Your task to perform on an android device: turn smart compose on in the gmail app Image 0: 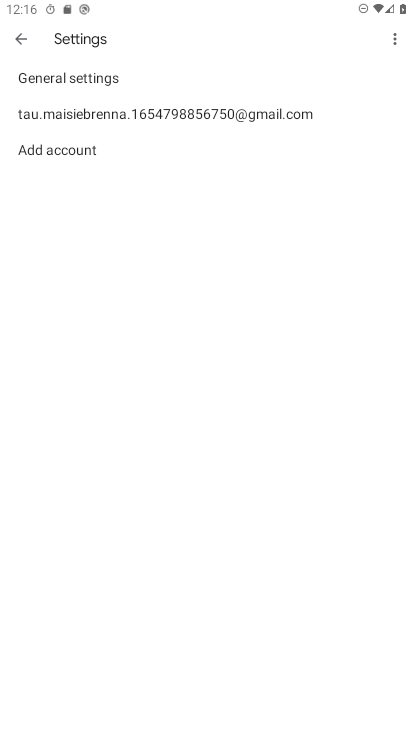
Step 0: press home button
Your task to perform on an android device: turn smart compose on in the gmail app Image 1: 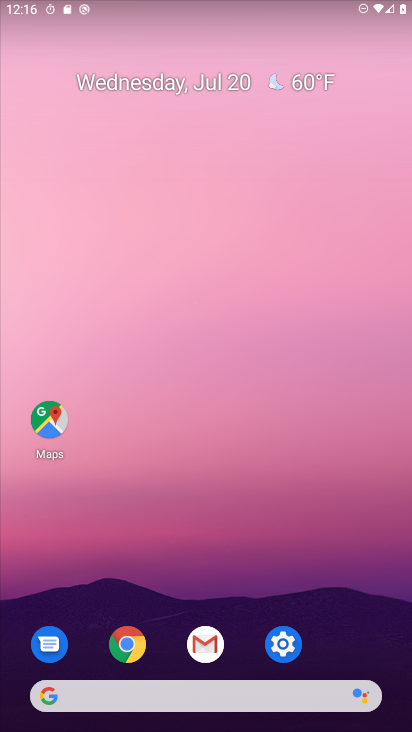
Step 1: click (203, 655)
Your task to perform on an android device: turn smart compose on in the gmail app Image 2: 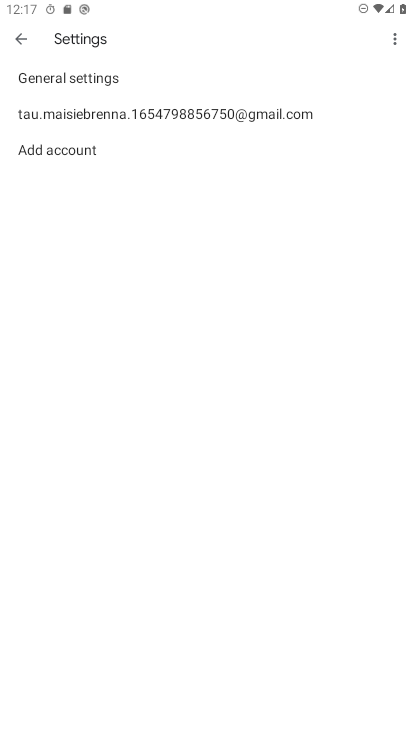
Step 2: click (109, 118)
Your task to perform on an android device: turn smart compose on in the gmail app Image 3: 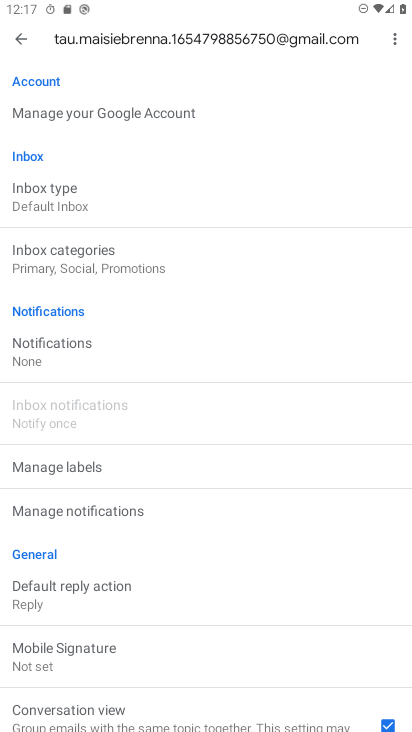
Step 3: drag from (160, 664) to (173, 416)
Your task to perform on an android device: turn smart compose on in the gmail app Image 4: 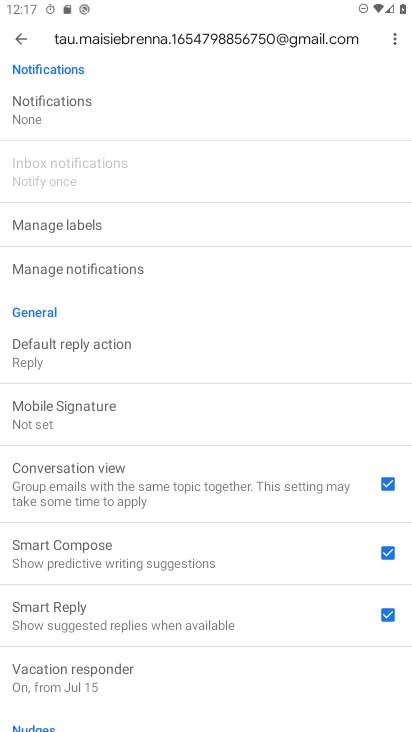
Step 4: click (155, 553)
Your task to perform on an android device: turn smart compose on in the gmail app Image 5: 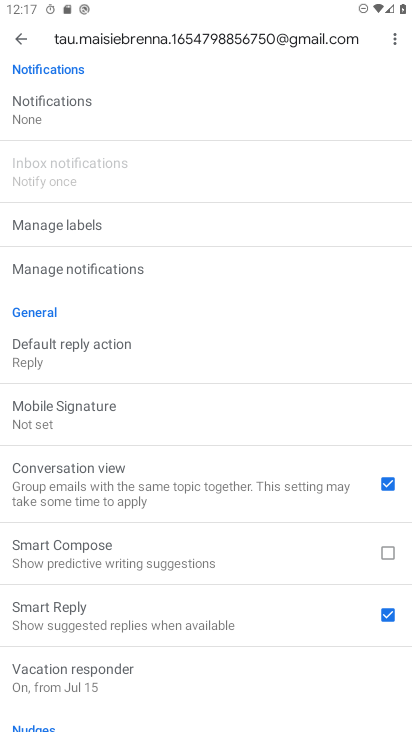
Step 5: click (155, 552)
Your task to perform on an android device: turn smart compose on in the gmail app Image 6: 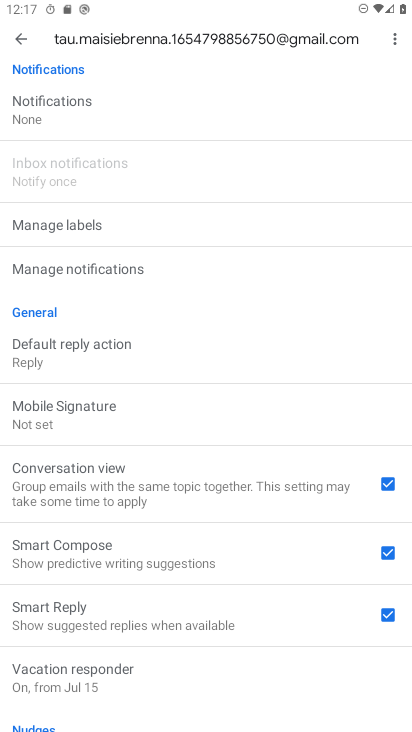
Step 6: task complete